Your task to perform on an android device: Open Youtube and go to the subscriptions tab Image 0: 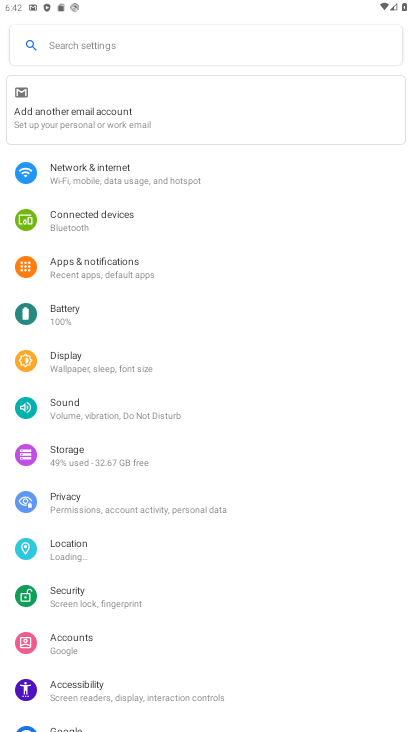
Step 0: press home button
Your task to perform on an android device: Open Youtube and go to the subscriptions tab Image 1: 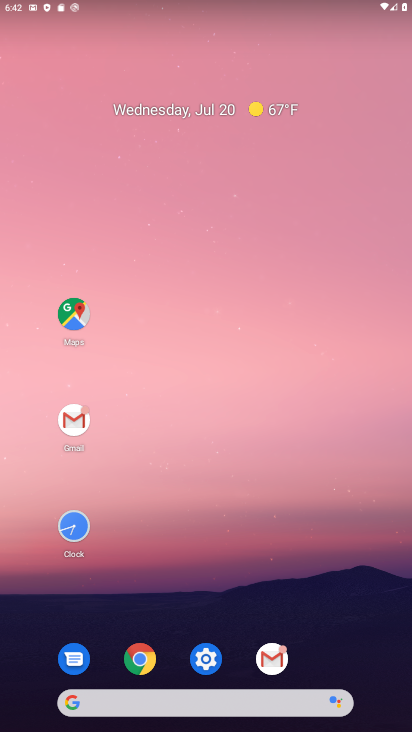
Step 1: drag from (255, 592) to (195, 44)
Your task to perform on an android device: Open Youtube and go to the subscriptions tab Image 2: 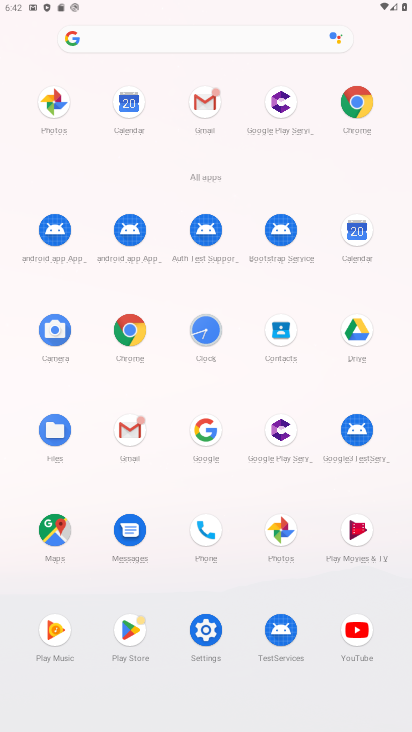
Step 2: click (352, 627)
Your task to perform on an android device: Open Youtube and go to the subscriptions tab Image 3: 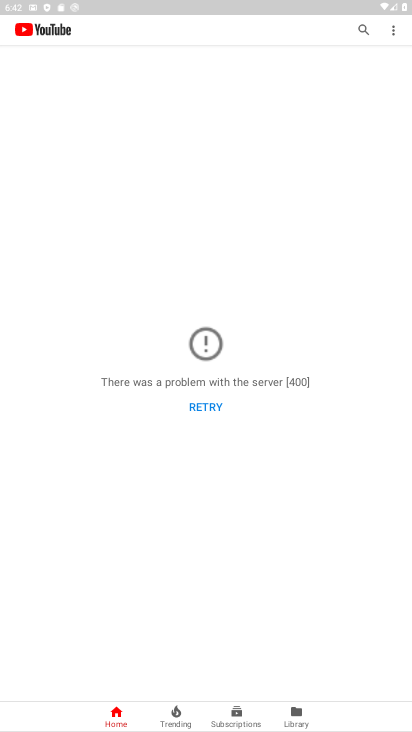
Step 3: click (234, 714)
Your task to perform on an android device: Open Youtube and go to the subscriptions tab Image 4: 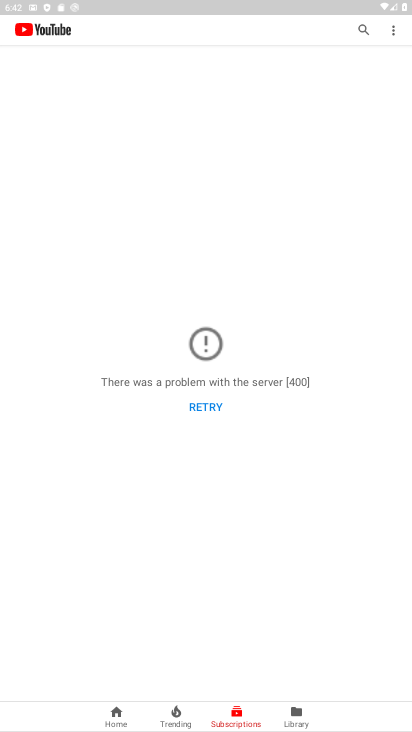
Step 4: task complete